Your task to perform on an android device: turn off javascript in the chrome app Image 0: 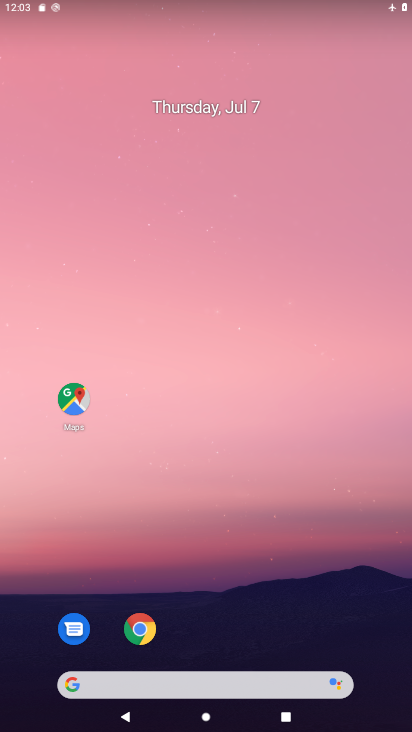
Step 0: drag from (253, 636) to (213, 236)
Your task to perform on an android device: turn off javascript in the chrome app Image 1: 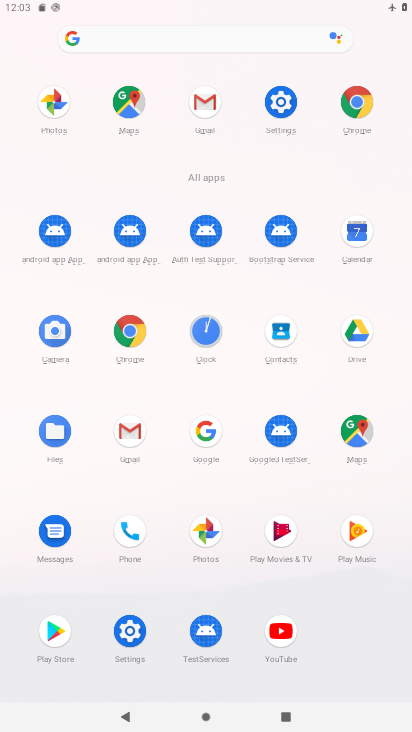
Step 1: click (360, 85)
Your task to perform on an android device: turn off javascript in the chrome app Image 2: 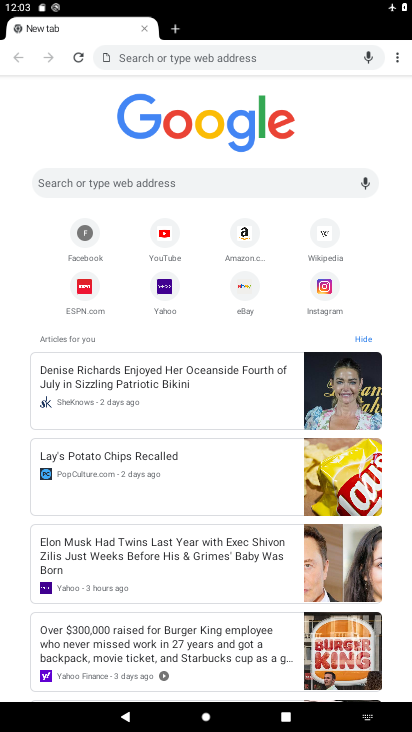
Step 2: click (397, 63)
Your task to perform on an android device: turn off javascript in the chrome app Image 3: 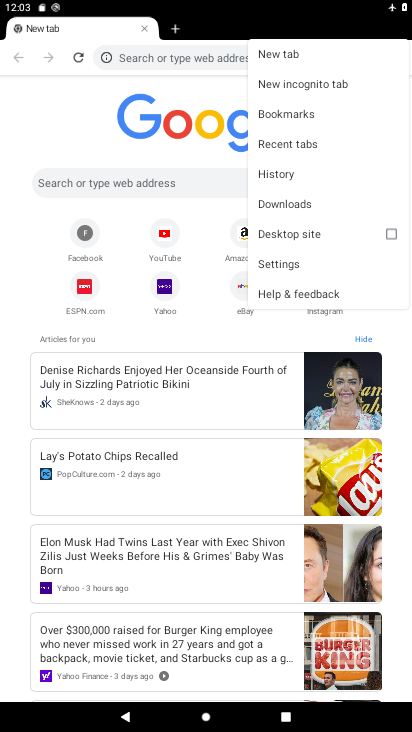
Step 3: click (307, 261)
Your task to perform on an android device: turn off javascript in the chrome app Image 4: 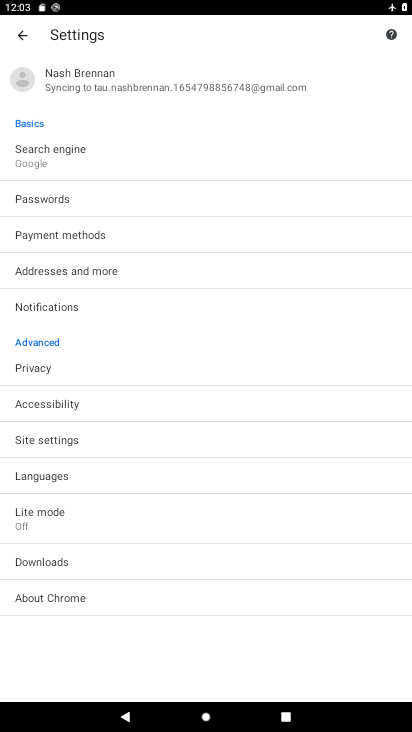
Step 4: click (113, 441)
Your task to perform on an android device: turn off javascript in the chrome app Image 5: 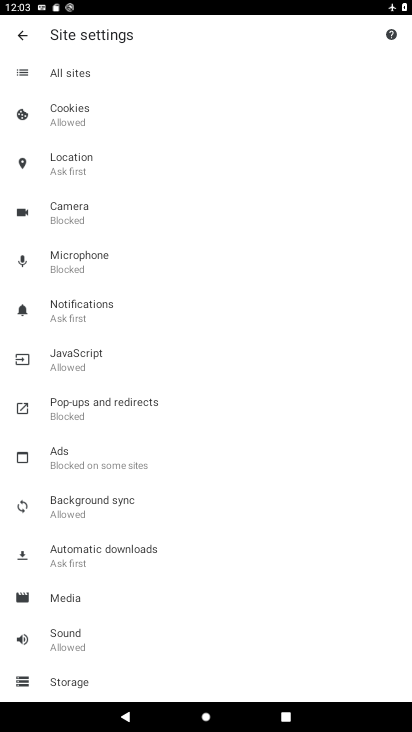
Step 5: click (172, 363)
Your task to perform on an android device: turn off javascript in the chrome app Image 6: 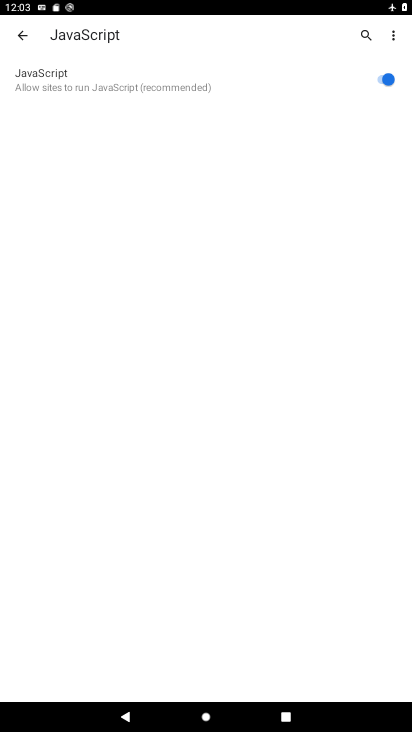
Step 6: click (390, 79)
Your task to perform on an android device: turn off javascript in the chrome app Image 7: 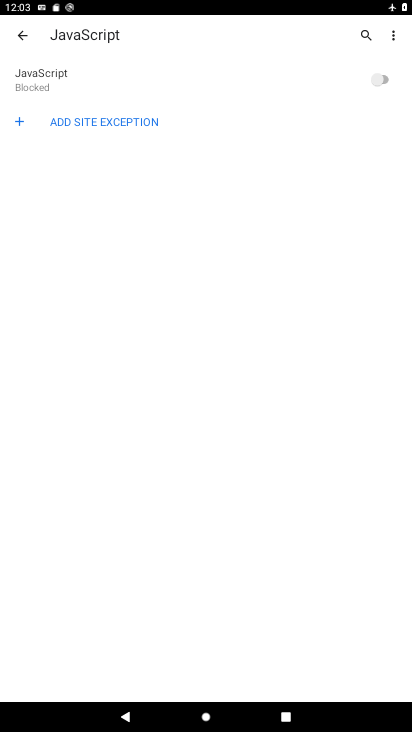
Step 7: task complete